Your task to perform on an android device: turn on wifi Image 0: 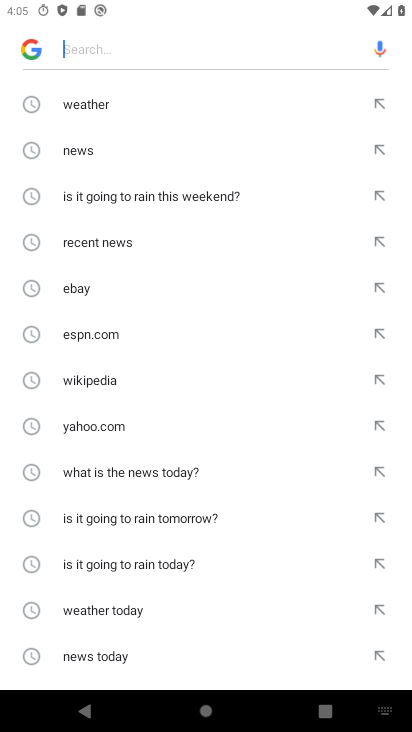
Step 0: drag from (265, 317) to (378, 170)
Your task to perform on an android device: turn on wifi Image 1: 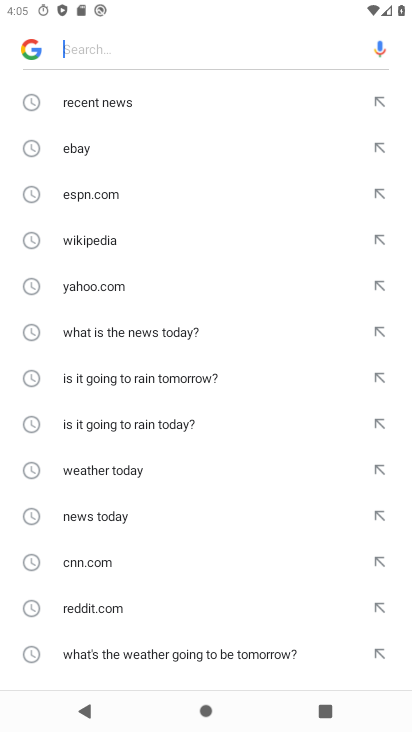
Step 1: press home button
Your task to perform on an android device: turn on wifi Image 2: 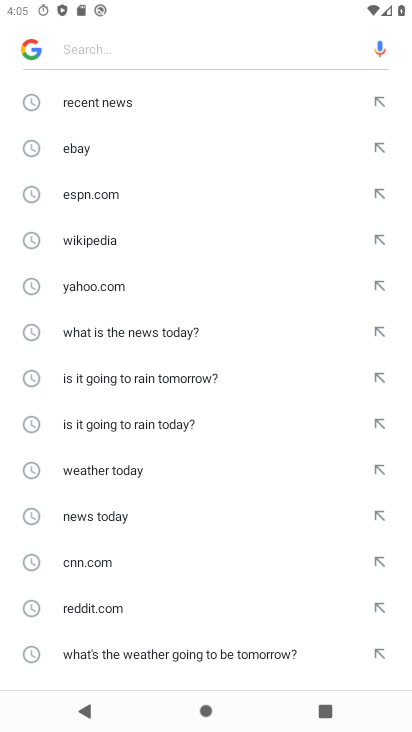
Step 2: drag from (378, 170) to (405, 324)
Your task to perform on an android device: turn on wifi Image 3: 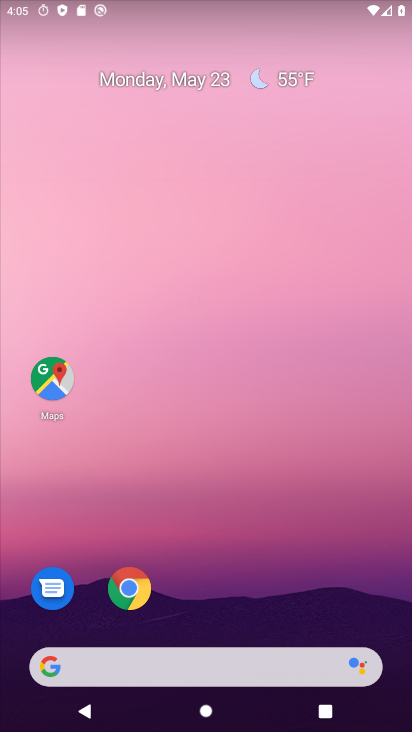
Step 3: drag from (209, 597) to (261, 165)
Your task to perform on an android device: turn on wifi Image 4: 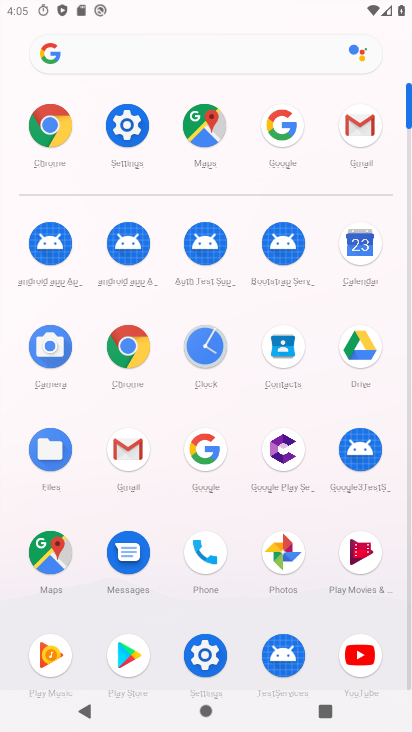
Step 4: click (133, 121)
Your task to perform on an android device: turn on wifi Image 5: 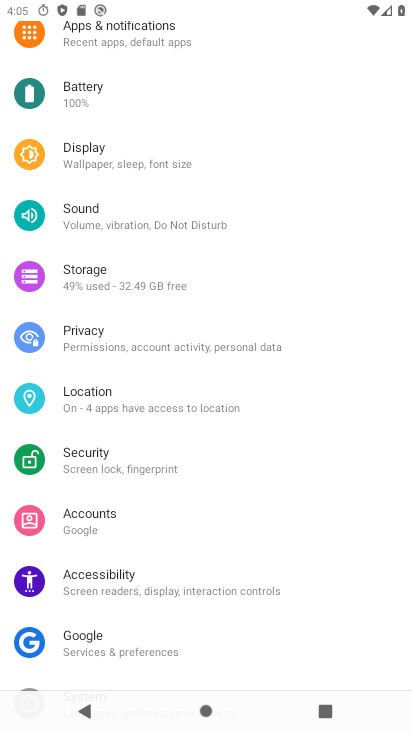
Step 5: drag from (202, 110) to (295, 623)
Your task to perform on an android device: turn on wifi Image 6: 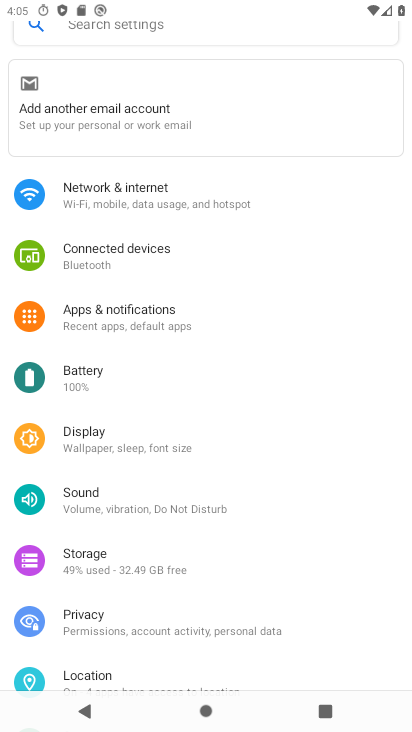
Step 6: click (203, 201)
Your task to perform on an android device: turn on wifi Image 7: 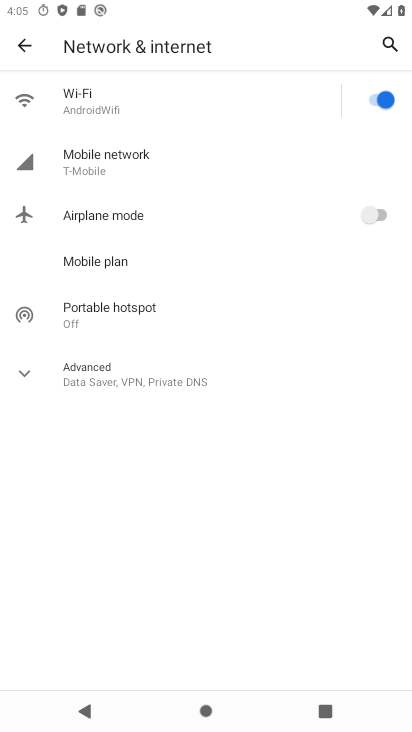
Step 7: task complete